Your task to perform on an android device: What's the news in Thailand? Image 0: 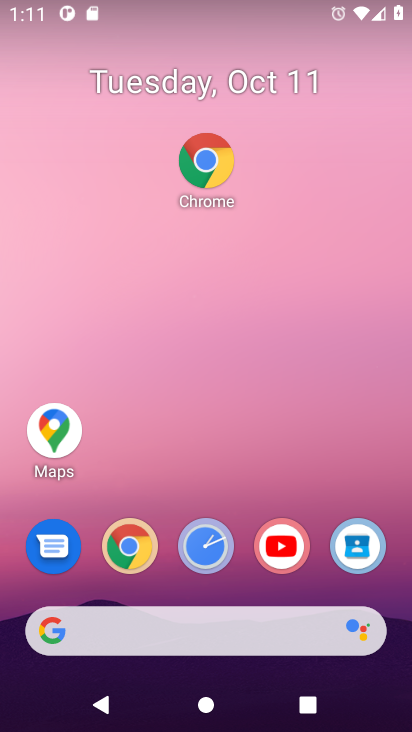
Step 0: click (132, 559)
Your task to perform on an android device: What's the news in Thailand? Image 1: 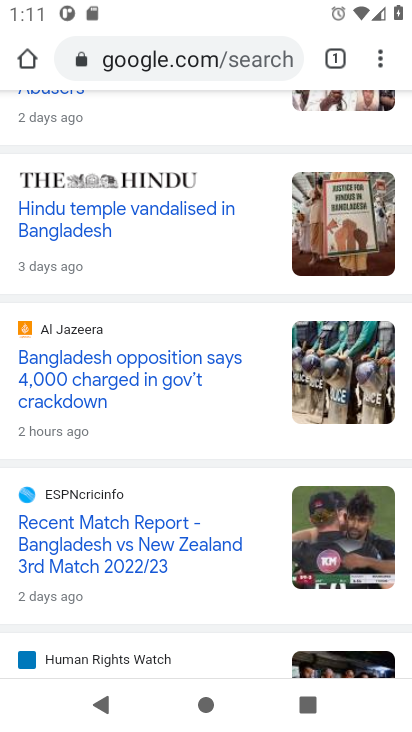
Step 1: click (146, 65)
Your task to perform on an android device: What's the news in Thailand? Image 2: 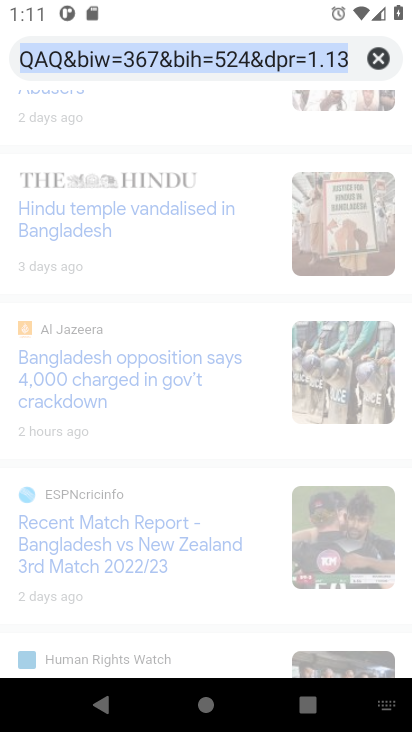
Step 2: type "news in Thailand"
Your task to perform on an android device: What's the news in Thailand? Image 3: 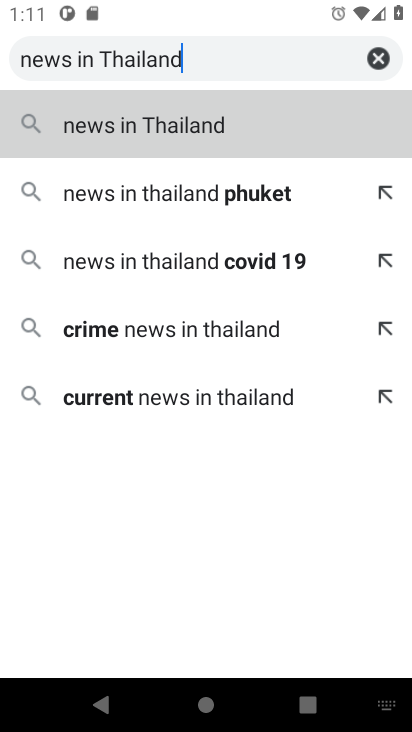
Step 3: click (293, 122)
Your task to perform on an android device: What's the news in Thailand? Image 4: 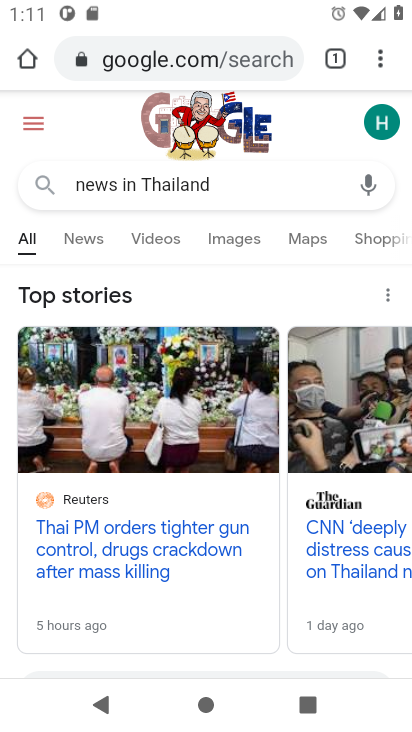
Step 4: click (69, 247)
Your task to perform on an android device: What's the news in Thailand? Image 5: 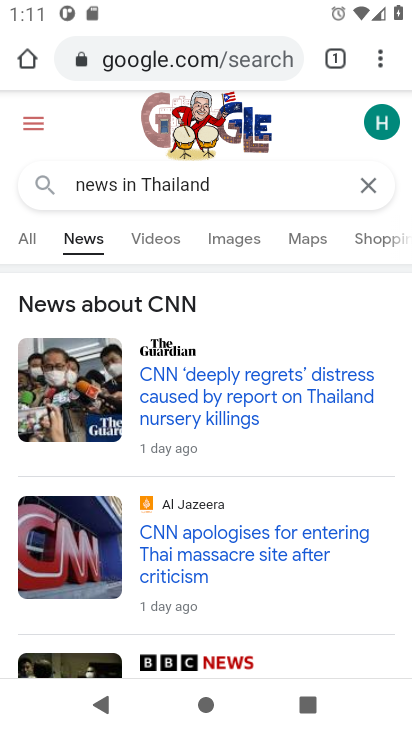
Step 5: task complete